Your task to perform on an android device: What's the news in Trinidad and Tobago? Image 0: 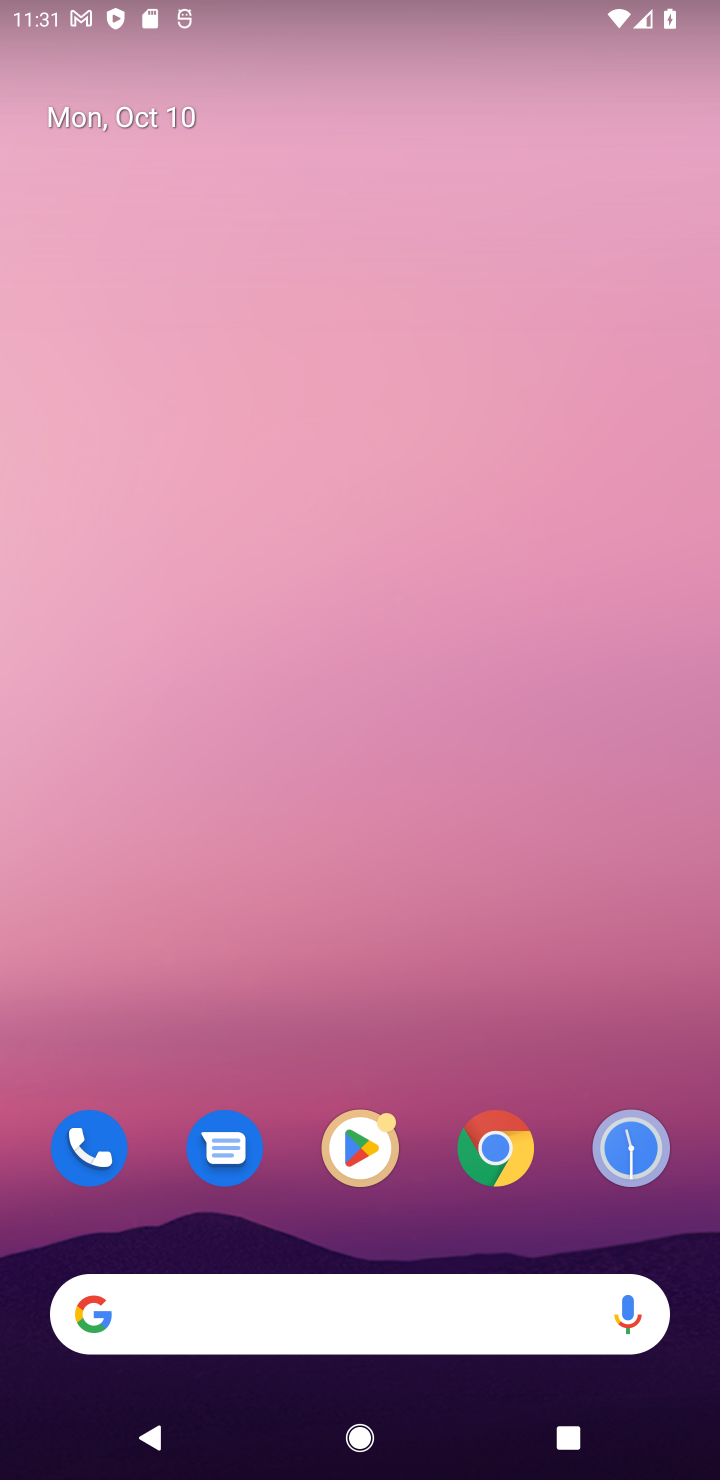
Step 0: drag from (413, 1314) to (36, 995)
Your task to perform on an android device: What's the news in Trinidad and Tobago? Image 1: 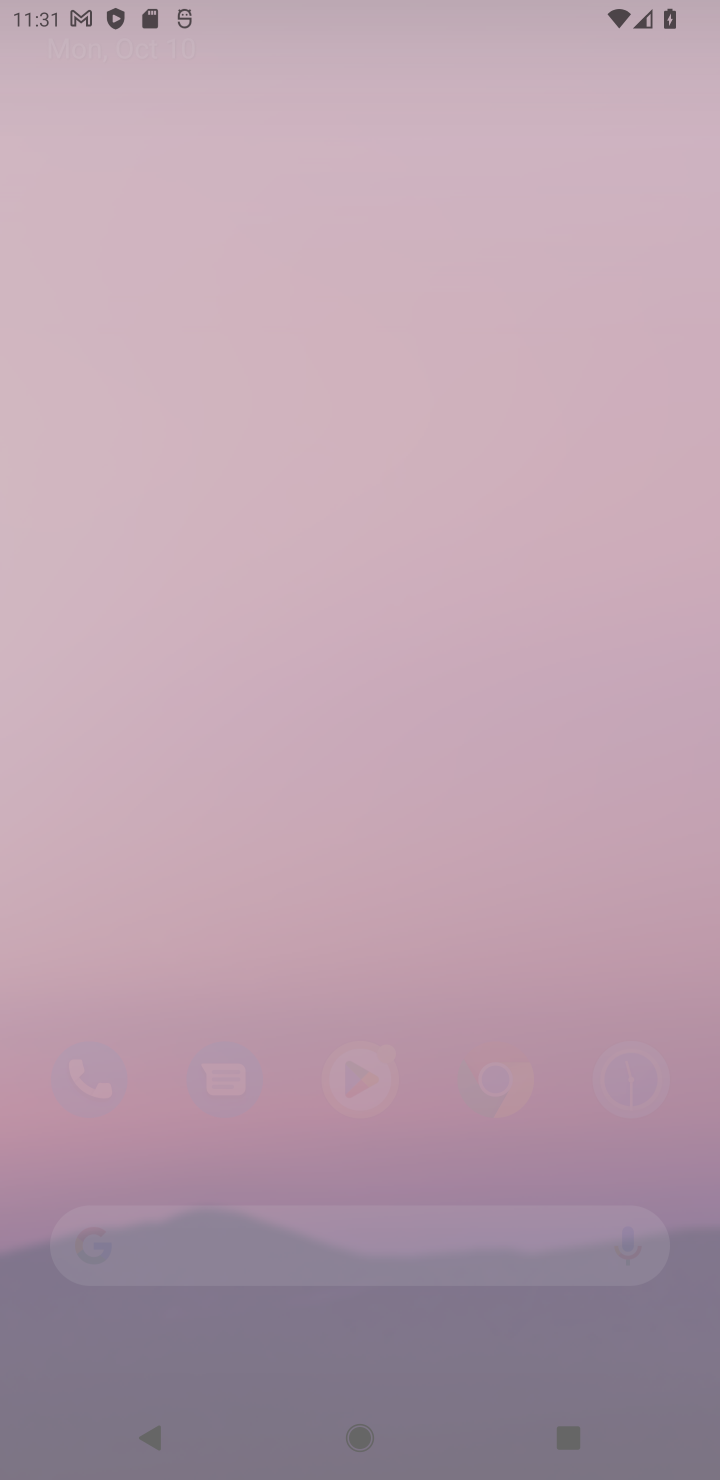
Step 1: click (472, 725)
Your task to perform on an android device: What's the news in Trinidad and Tobago? Image 2: 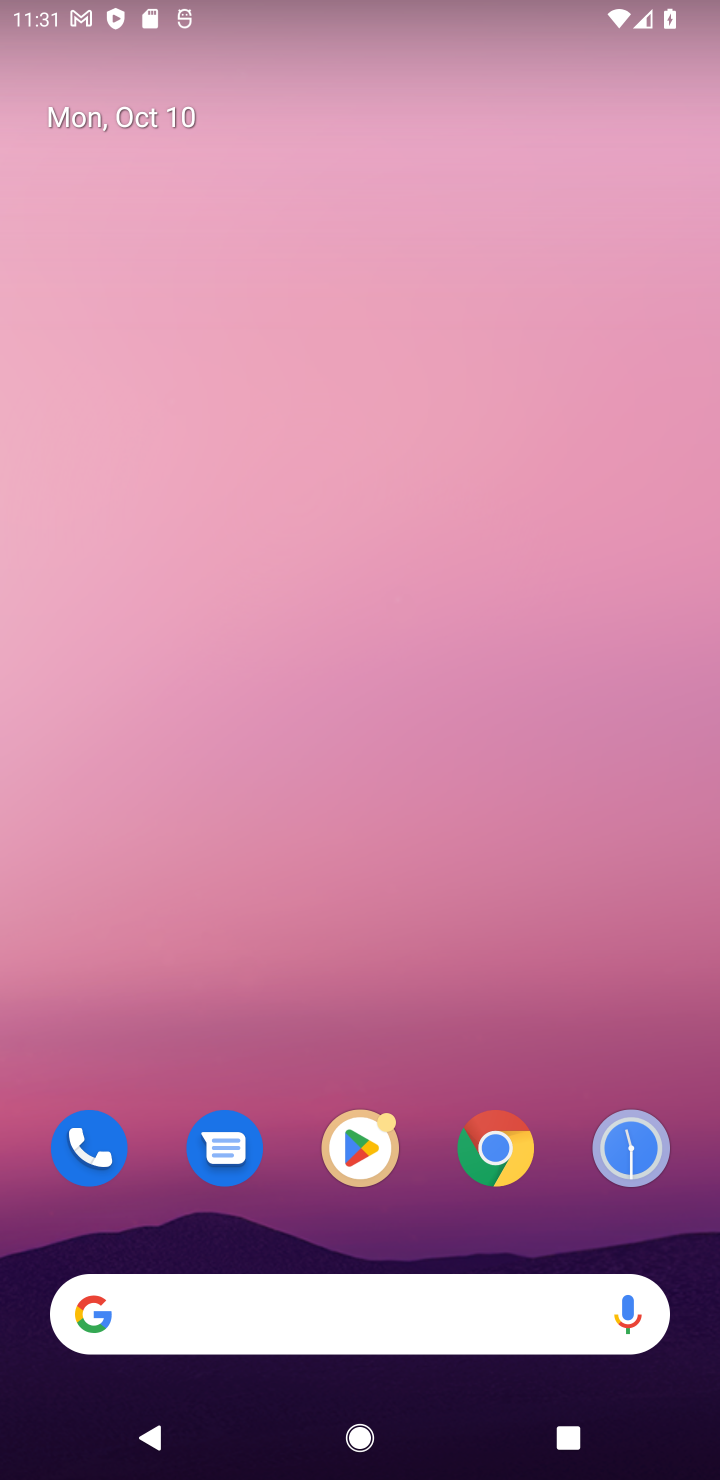
Step 2: drag from (188, 1232) to (420, 173)
Your task to perform on an android device: What's the news in Trinidad and Tobago? Image 3: 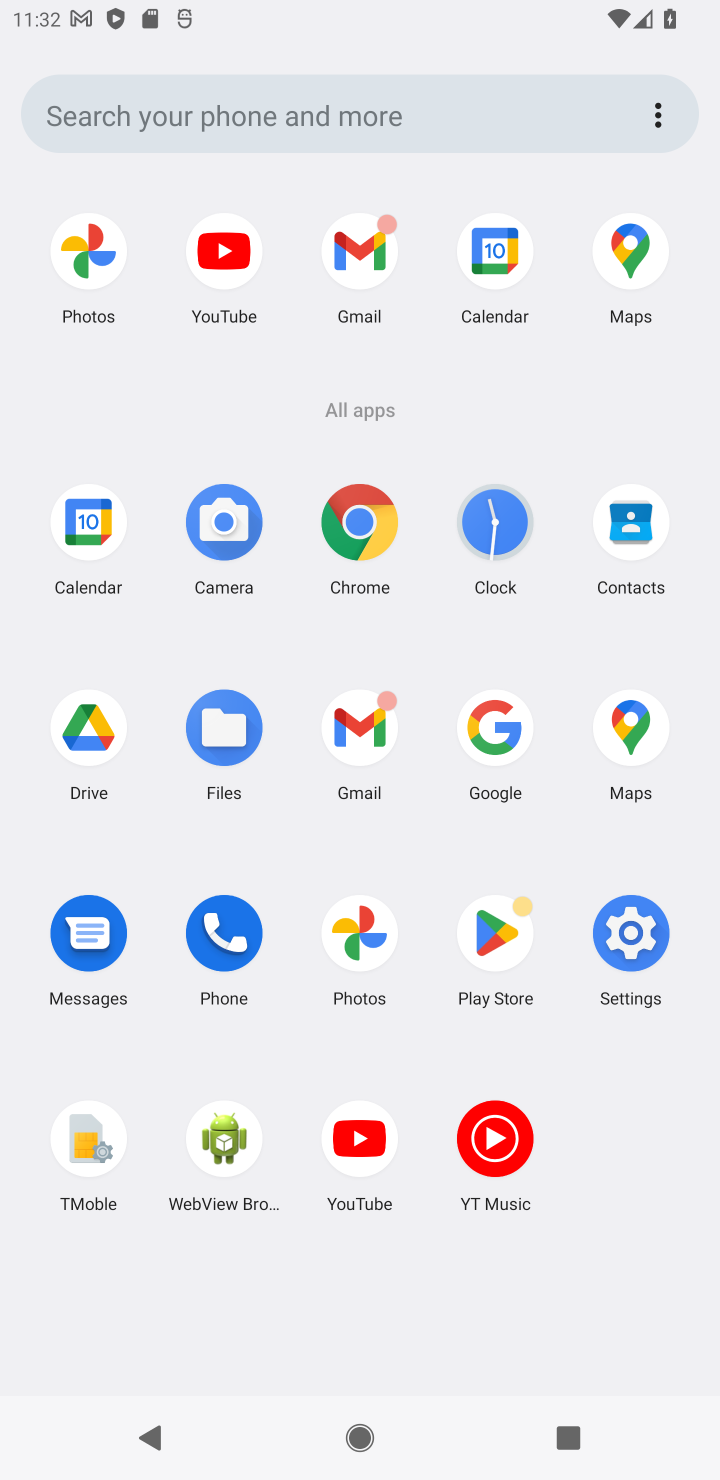
Step 3: click (498, 712)
Your task to perform on an android device: What's the news in Trinidad and Tobago? Image 4: 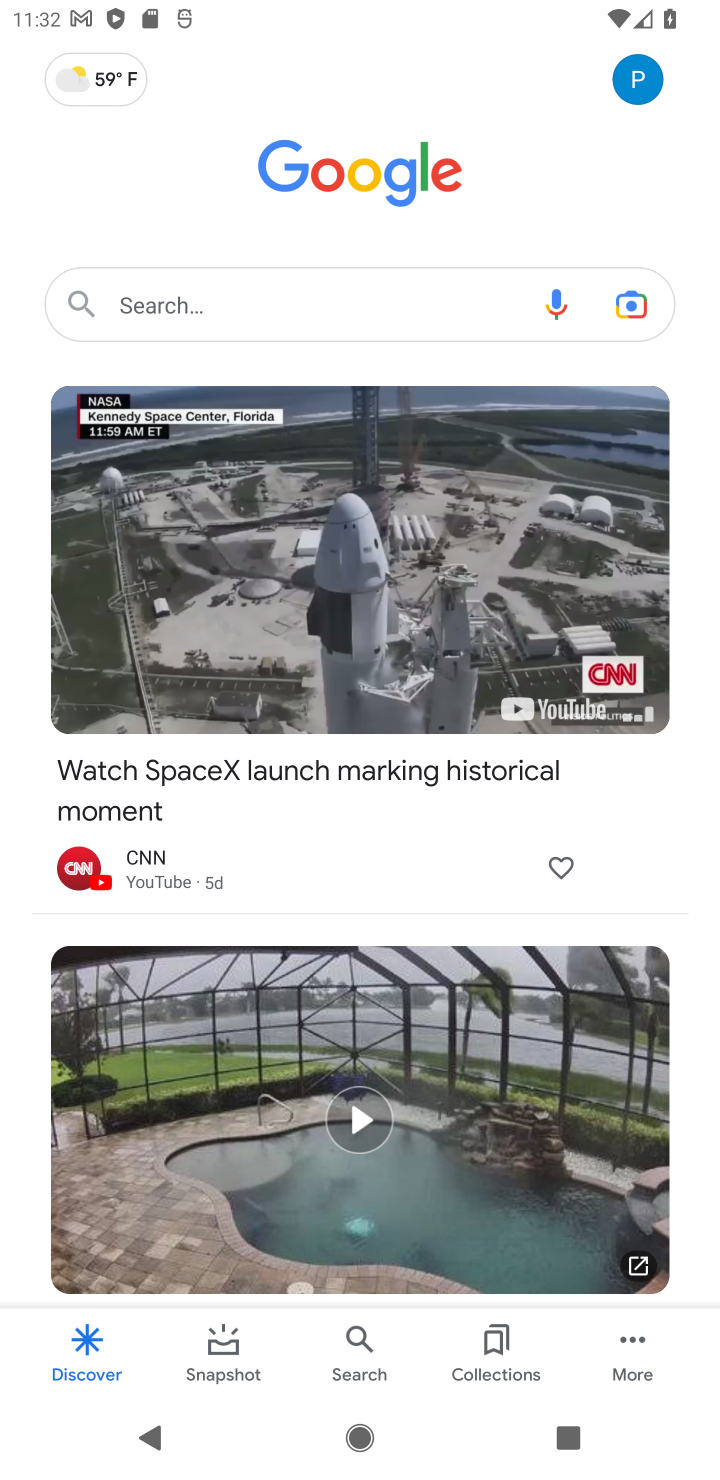
Step 4: click (419, 282)
Your task to perform on an android device: What's the news in Trinidad and Tobago? Image 5: 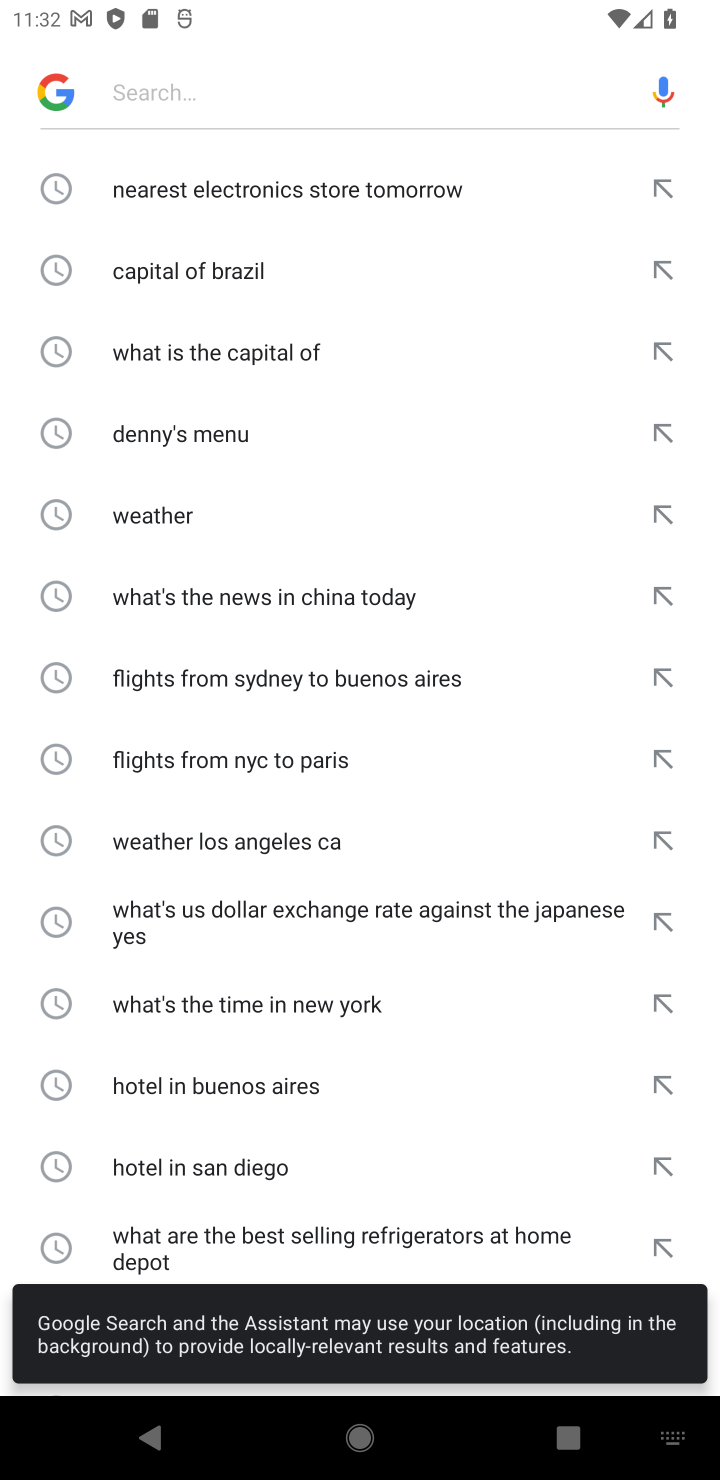
Step 5: type "What's the news in Trinidad and Tobago"
Your task to perform on an android device: What's the news in Trinidad and Tobago? Image 6: 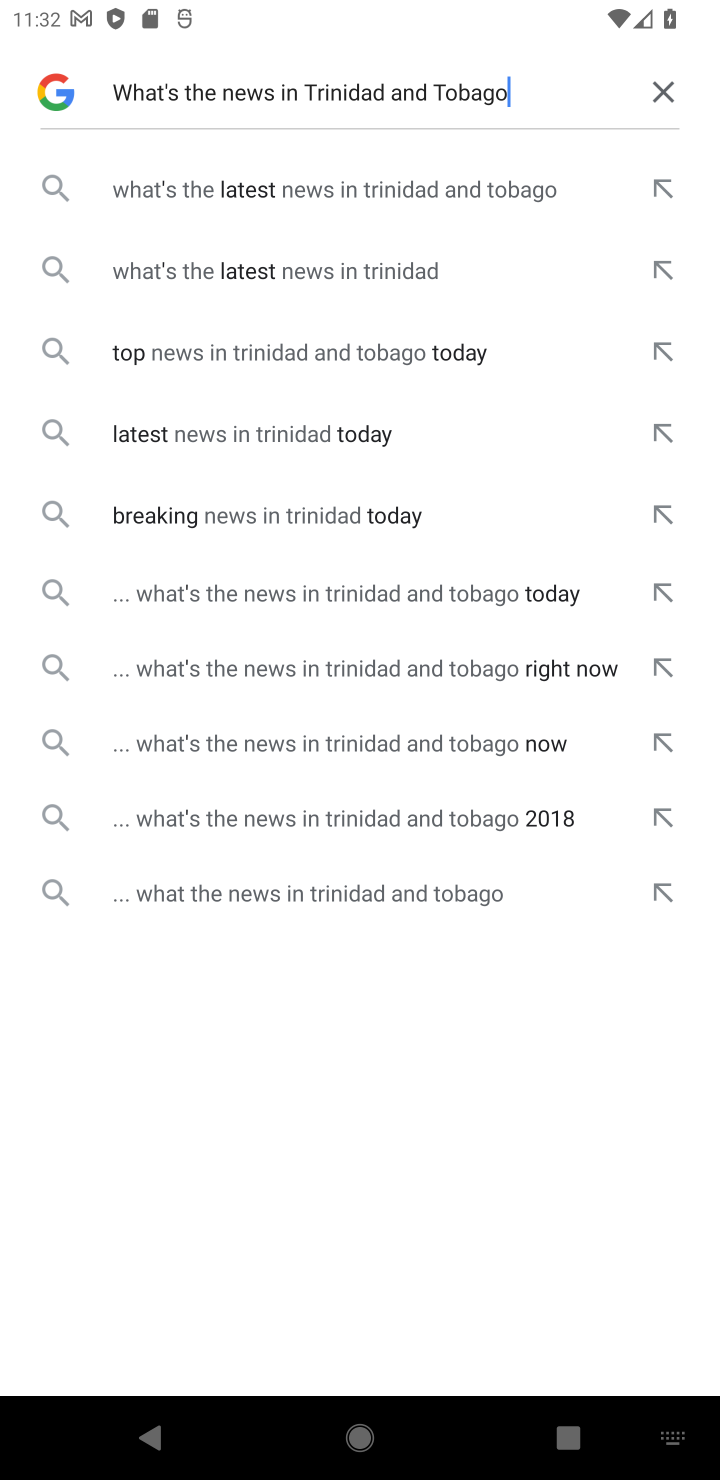
Step 6: click (406, 184)
Your task to perform on an android device: What's the news in Trinidad and Tobago? Image 7: 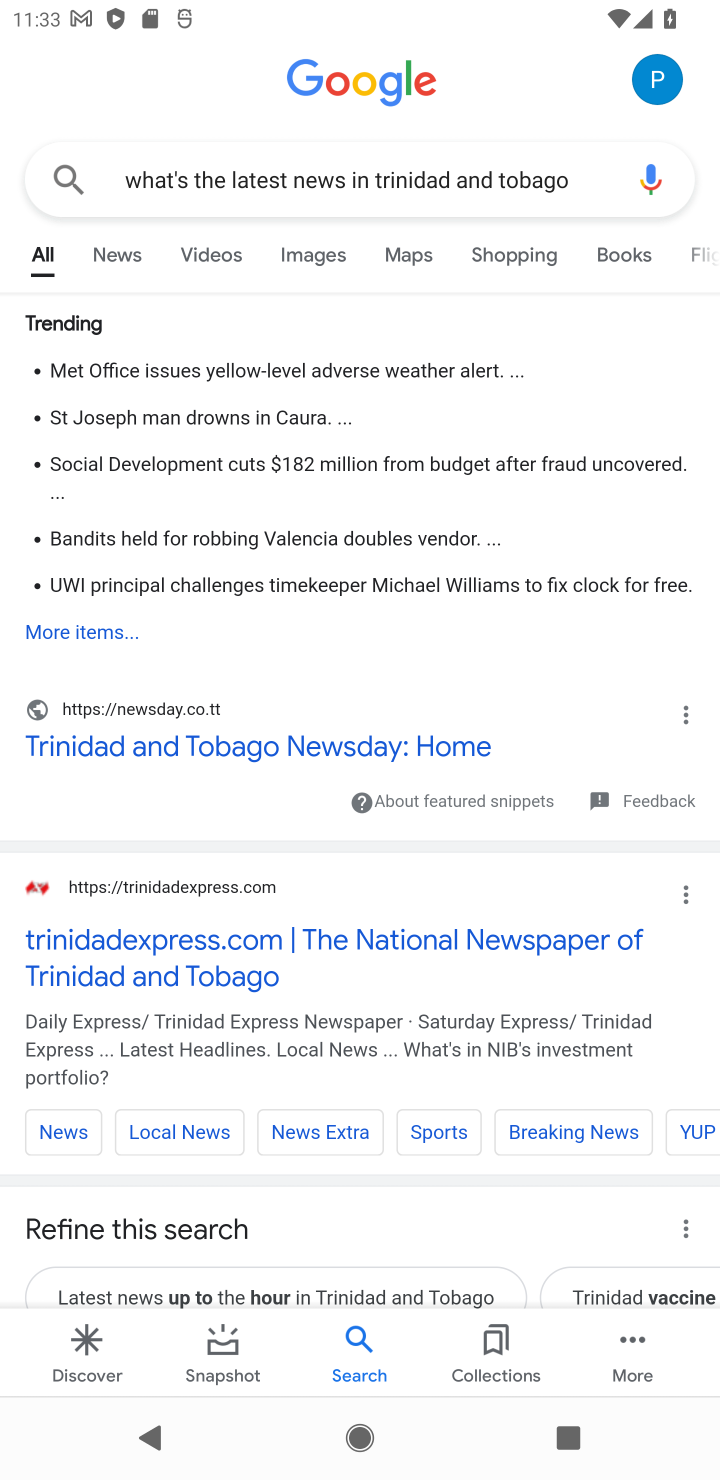
Step 7: task complete